Your task to perform on an android device: turn notification dots off Image 0: 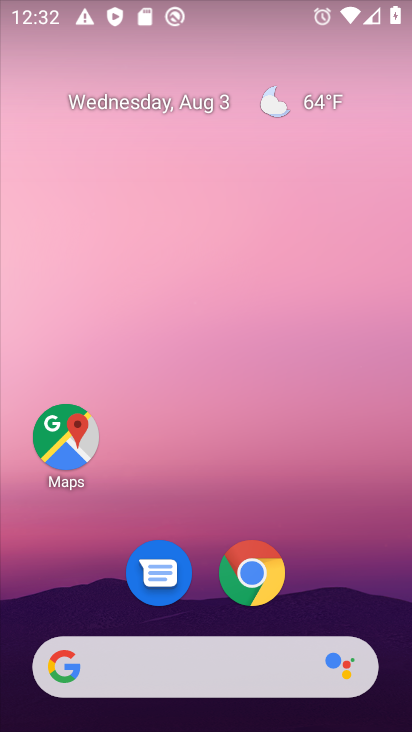
Step 0: drag from (190, 661) to (250, 137)
Your task to perform on an android device: turn notification dots off Image 1: 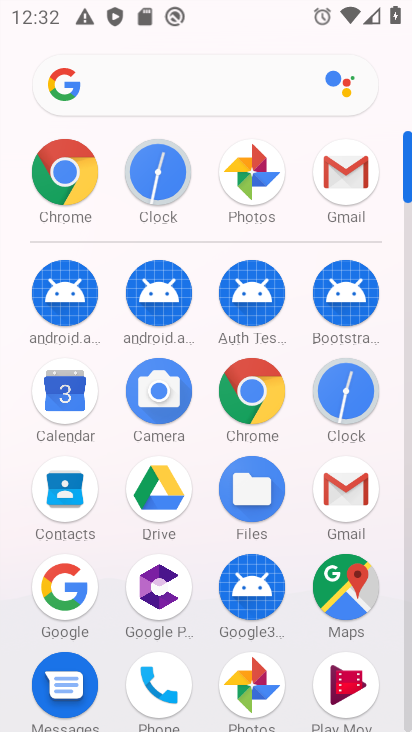
Step 1: drag from (197, 488) to (204, 205)
Your task to perform on an android device: turn notification dots off Image 2: 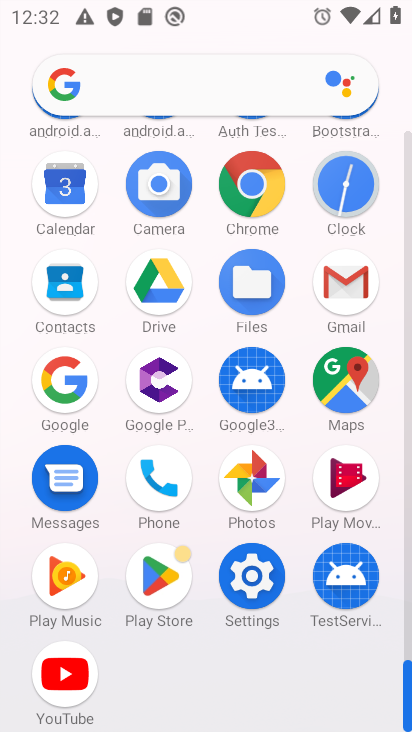
Step 2: click (246, 574)
Your task to perform on an android device: turn notification dots off Image 3: 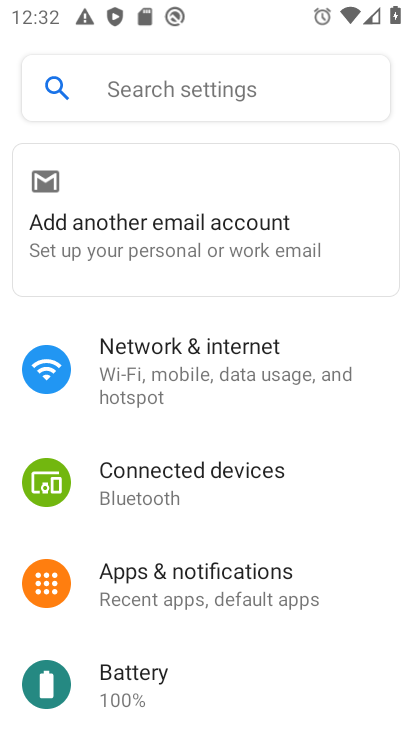
Step 3: click (208, 588)
Your task to perform on an android device: turn notification dots off Image 4: 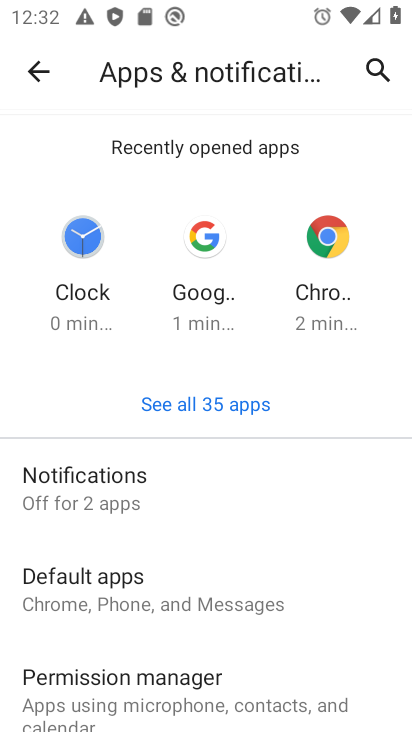
Step 4: click (151, 497)
Your task to perform on an android device: turn notification dots off Image 5: 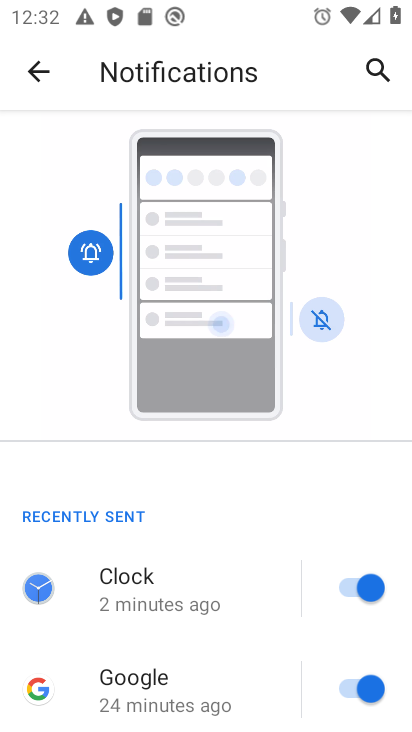
Step 5: drag from (149, 604) to (230, 230)
Your task to perform on an android device: turn notification dots off Image 6: 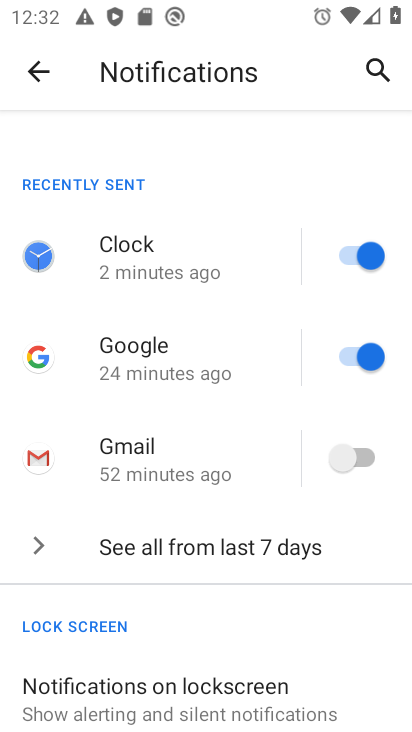
Step 6: drag from (190, 589) to (231, 299)
Your task to perform on an android device: turn notification dots off Image 7: 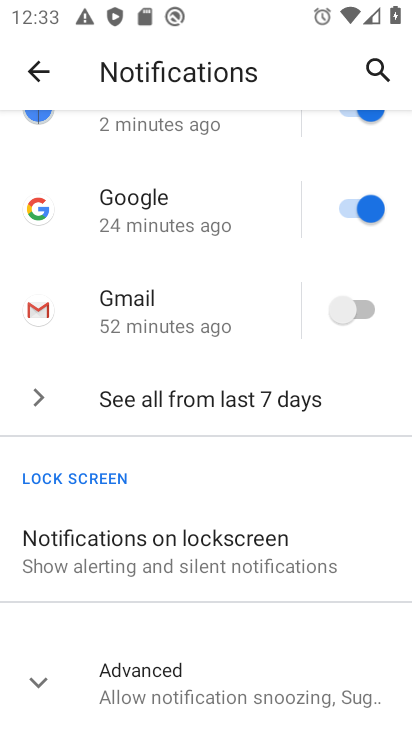
Step 7: click (183, 685)
Your task to perform on an android device: turn notification dots off Image 8: 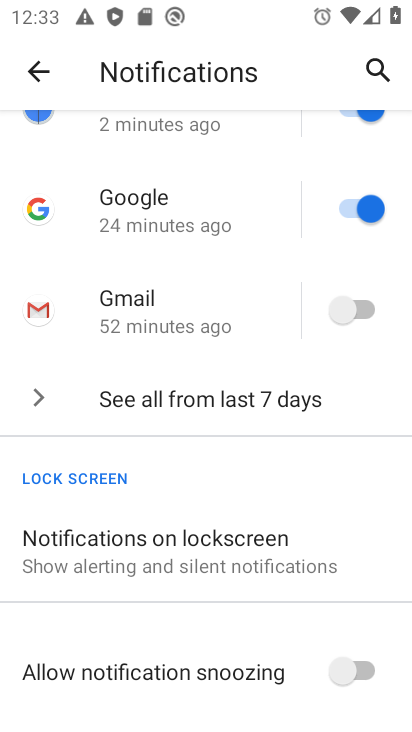
Step 8: drag from (180, 633) to (255, 177)
Your task to perform on an android device: turn notification dots off Image 9: 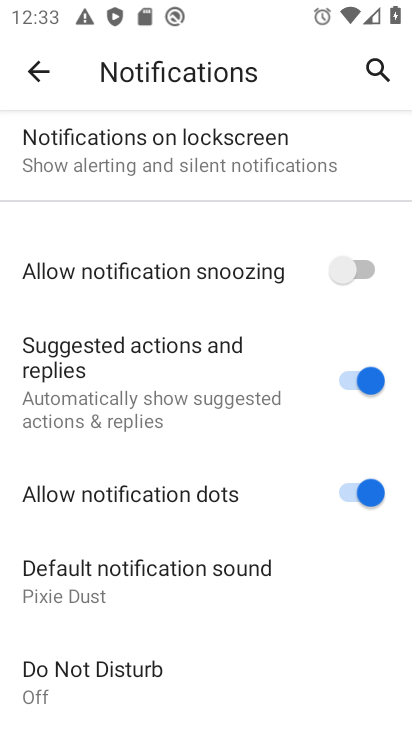
Step 9: drag from (159, 649) to (216, 248)
Your task to perform on an android device: turn notification dots off Image 10: 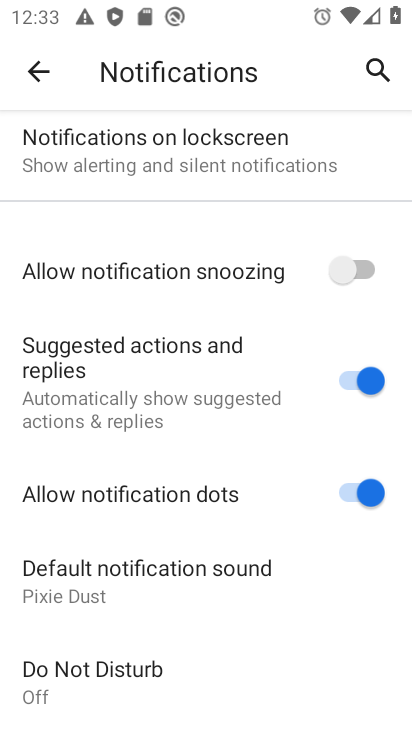
Step 10: click (197, 493)
Your task to perform on an android device: turn notification dots off Image 11: 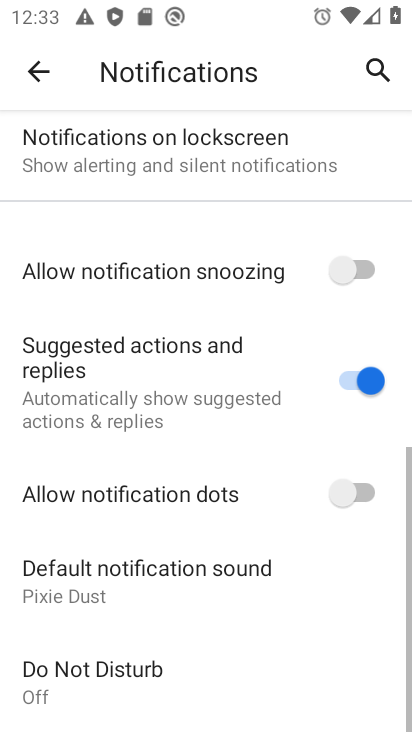
Step 11: task complete